Your task to perform on an android device: Open calendar and show me the second week of next month Image 0: 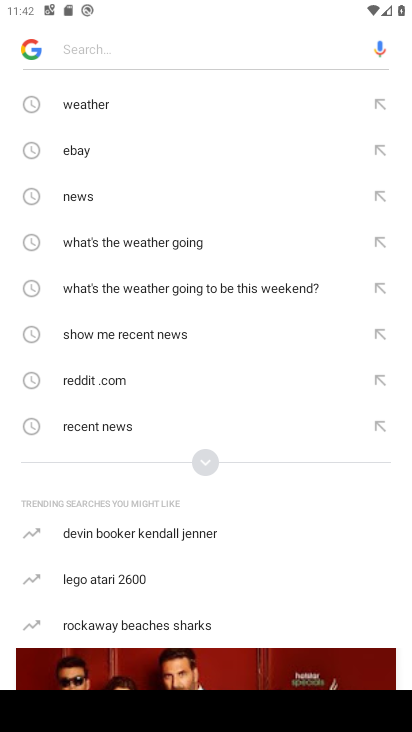
Step 0: press home button
Your task to perform on an android device: Open calendar and show me the second week of next month Image 1: 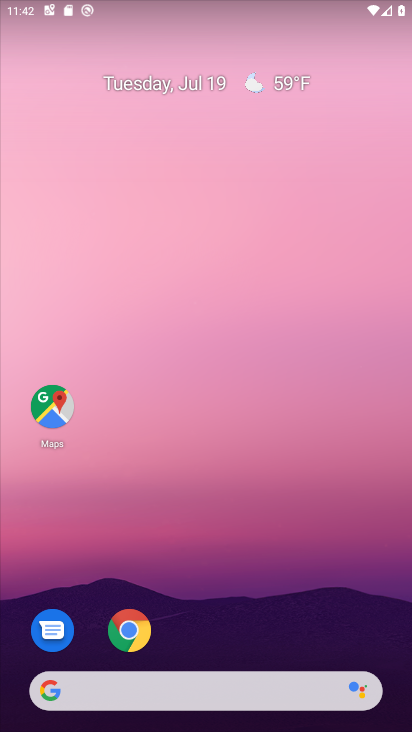
Step 1: drag from (390, 646) to (364, 127)
Your task to perform on an android device: Open calendar and show me the second week of next month Image 2: 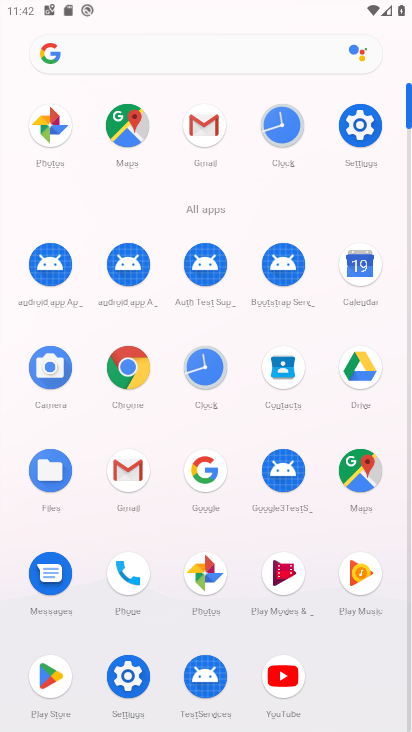
Step 2: click (360, 266)
Your task to perform on an android device: Open calendar and show me the second week of next month Image 3: 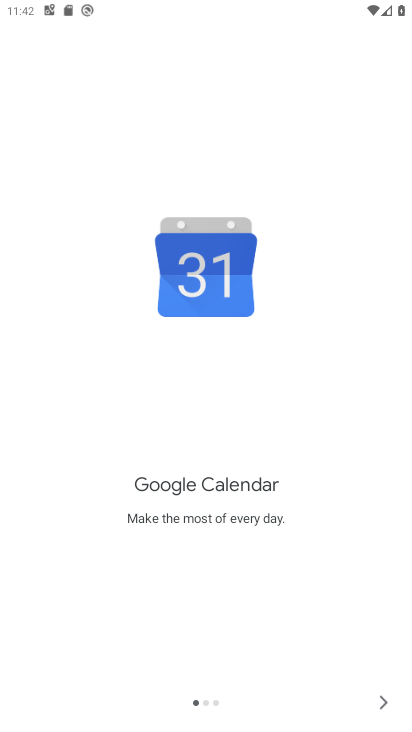
Step 3: click (380, 691)
Your task to perform on an android device: Open calendar and show me the second week of next month Image 4: 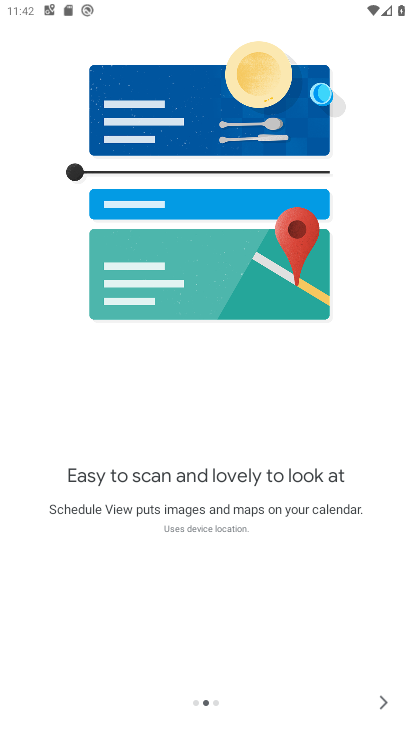
Step 4: click (380, 691)
Your task to perform on an android device: Open calendar and show me the second week of next month Image 5: 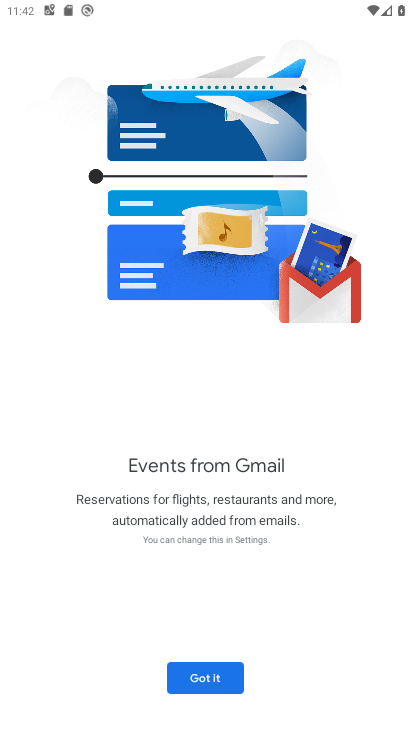
Step 5: click (205, 678)
Your task to perform on an android device: Open calendar and show me the second week of next month Image 6: 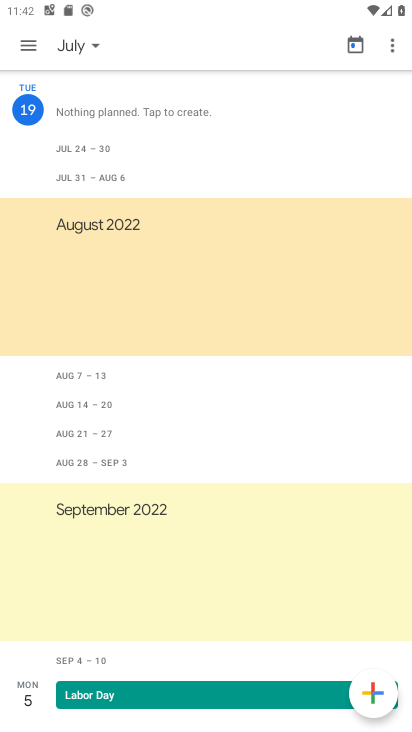
Step 6: click (31, 42)
Your task to perform on an android device: Open calendar and show me the second week of next month Image 7: 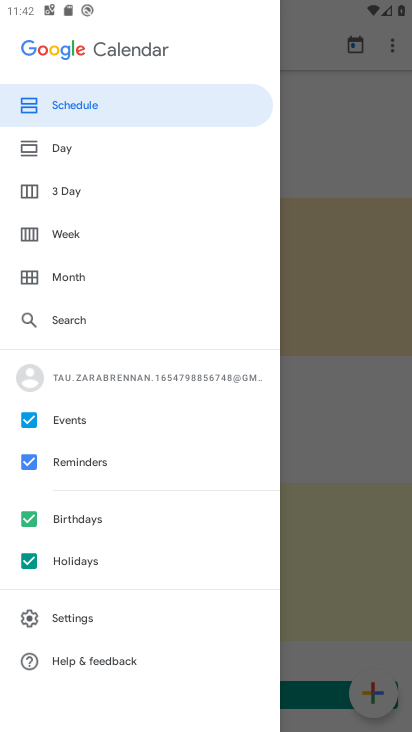
Step 7: click (64, 235)
Your task to perform on an android device: Open calendar and show me the second week of next month Image 8: 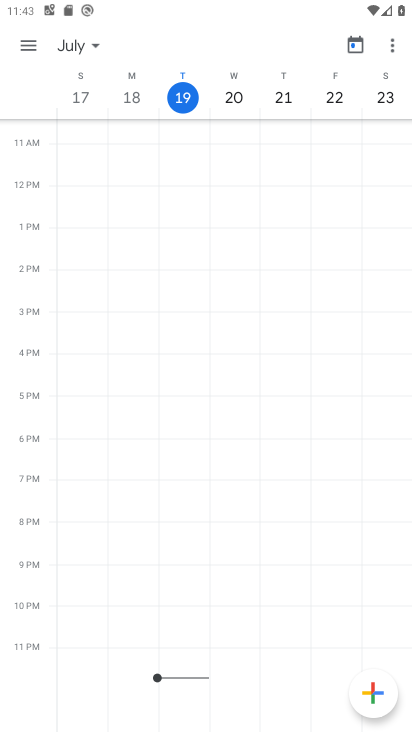
Step 8: click (93, 45)
Your task to perform on an android device: Open calendar and show me the second week of next month Image 9: 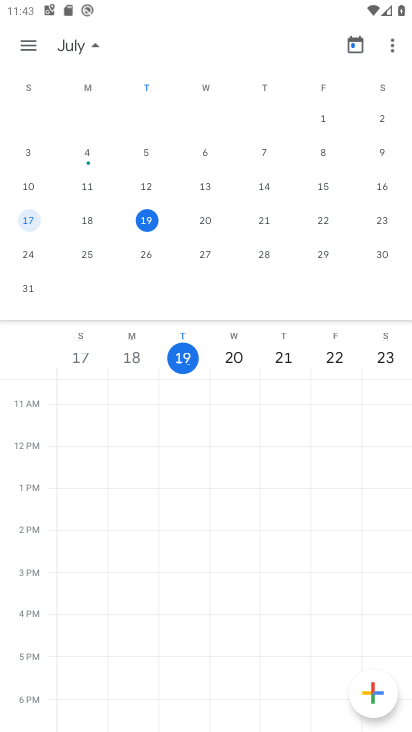
Step 9: drag from (383, 231) to (52, 209)
Your task to perform on an android device: Open calendar and show me the second week of next month Image 10: 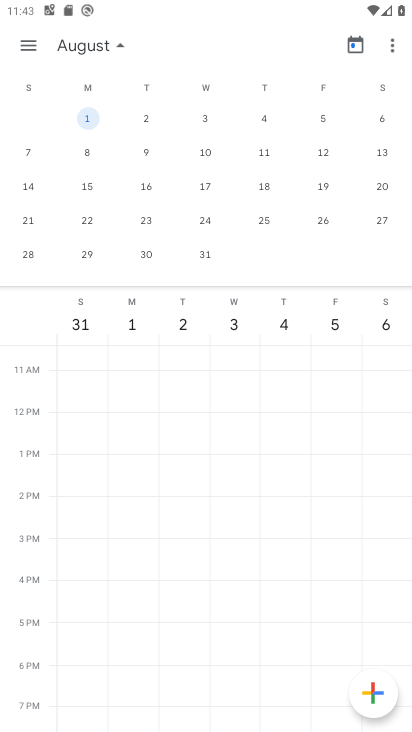
Step 10: click (30, 181)
Your task to perform on an android device: Open calendar and show me the second week of next month Image 11: 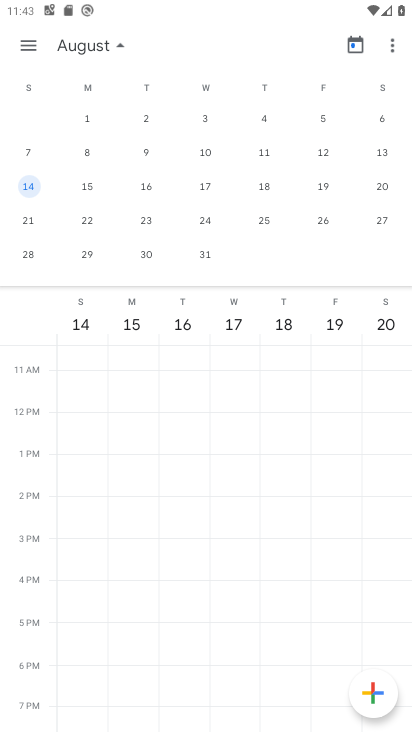
Step 11: task complete